Your task to perform on an android device: Open settings Image 0: 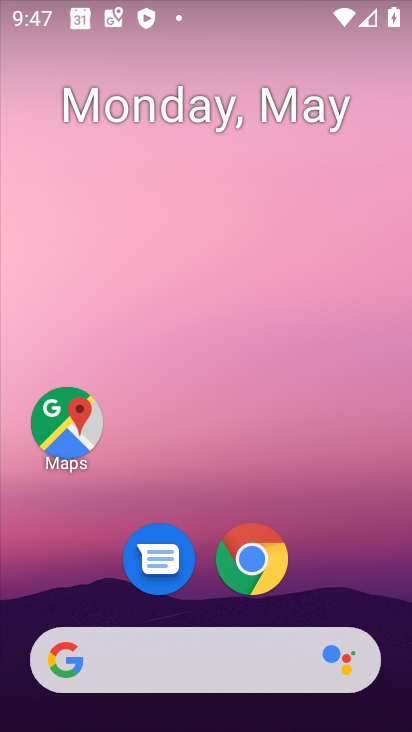
Step 0: drag from (323, 487) to (284, 159)
Your task to perform on an android device: Open settings Image 1: 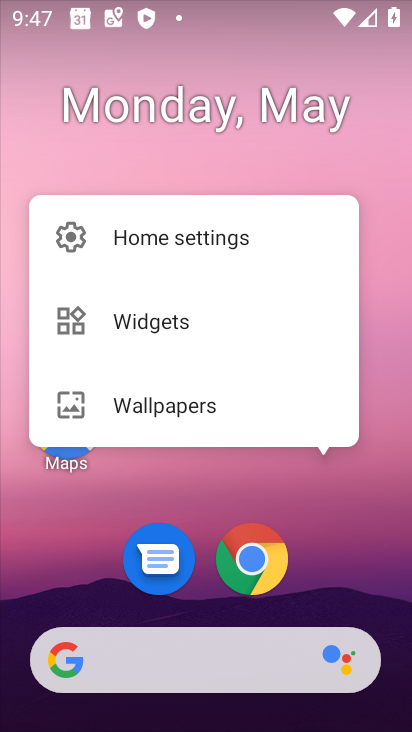
Step 1: click (312, 475)
Your task to perform on an android device: Open settings Image 2: 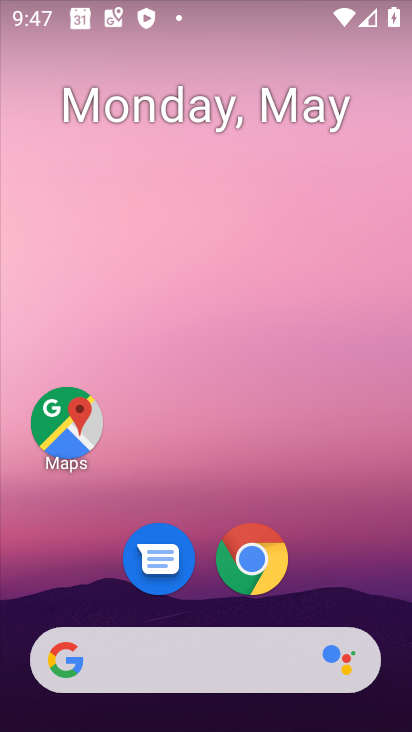
Step 2: drag from (262, 463) to (123, 63)
Your task to perform on an android device: Open settings Image 3: 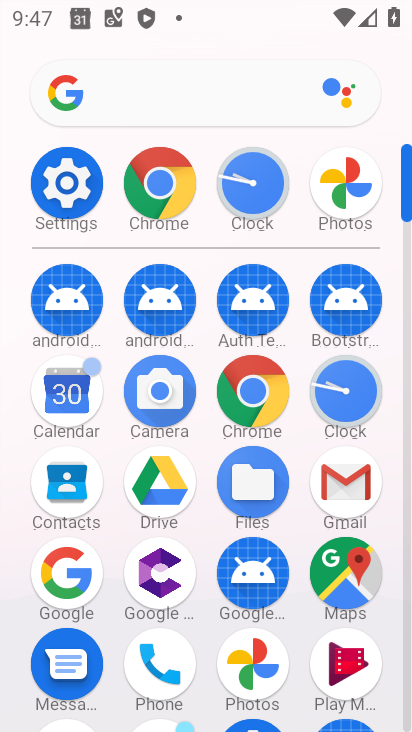
Step 3: click (71, 190)
Your task to perform on an android device: Open settings Image 4: 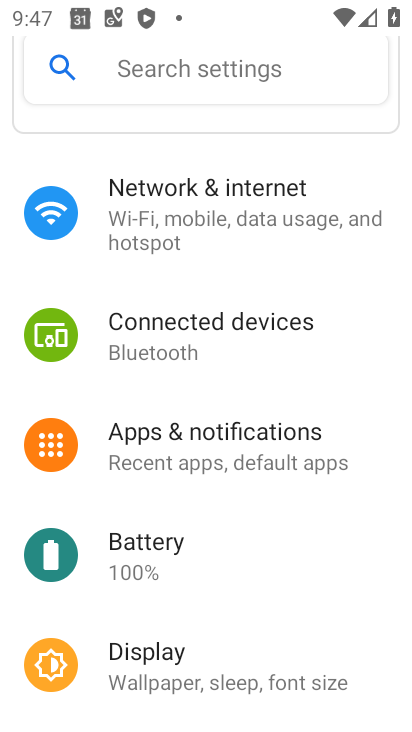
Step 4: task complete